Your task to perform on an android device: change timer sound Image 0: 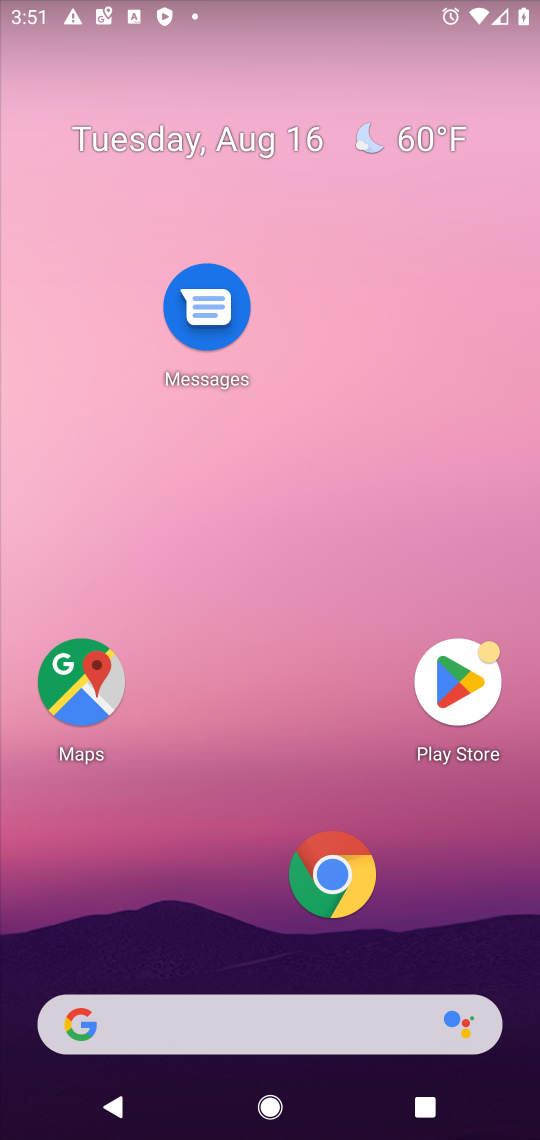
Step 0: task complete